Your task to perform on an android device: check google app version Image 0: 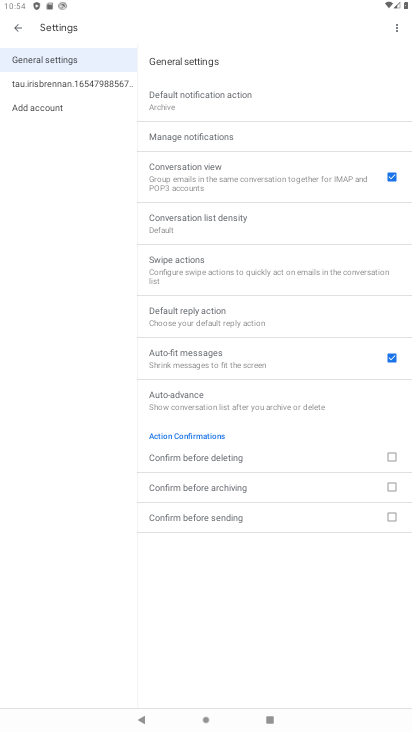
Step 0: press home button
Your task to perform on an android device: check google app version Image 1: 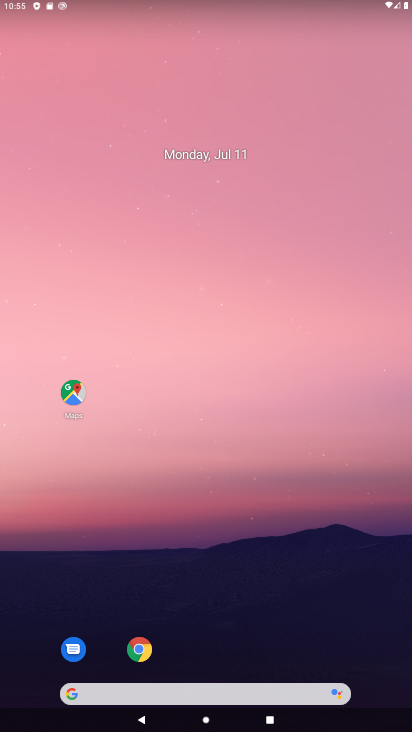
Step 1: drag from (189, 689) to (408, 113)
Your task to perform on an android device: check google app version Image 2: 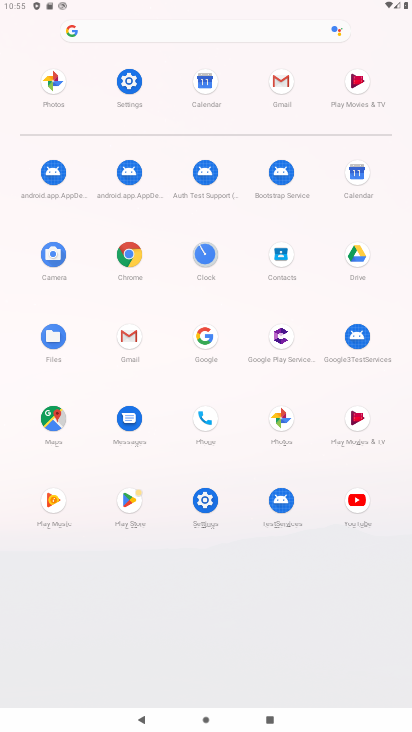
Step 2: click (203, 333)
Your task to perform on an android device: check google app version Image 3: 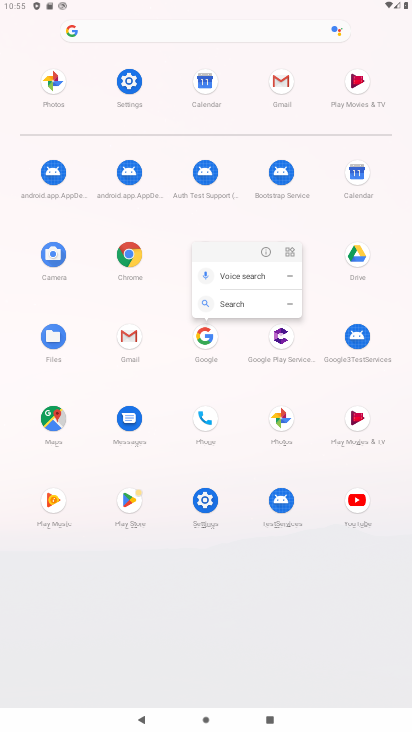
Step 3: click (271, 252)
Your task to perform on an android device: check google app version Image 4: 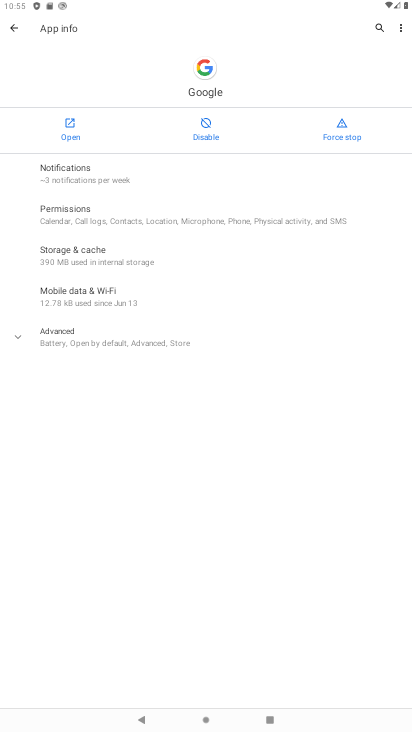
Step 4: click (61, 333)
Your task to perform on an android device: check google app version Image 5: 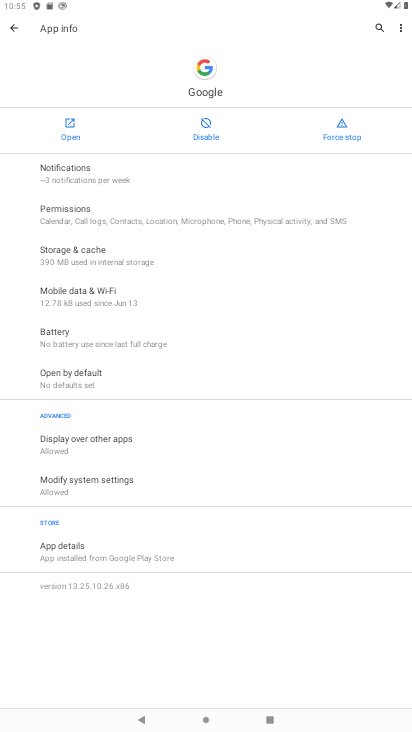
Step 5: click (67, 588)
Your task to perform on an android device: check google app version Image 6: 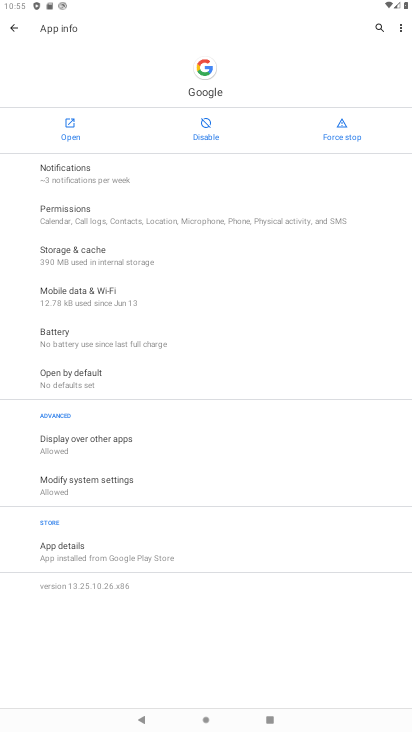
Step 6: drag from (67, 588) to (135, 587)
Your task to perform on an android device: check google app version Image 7: 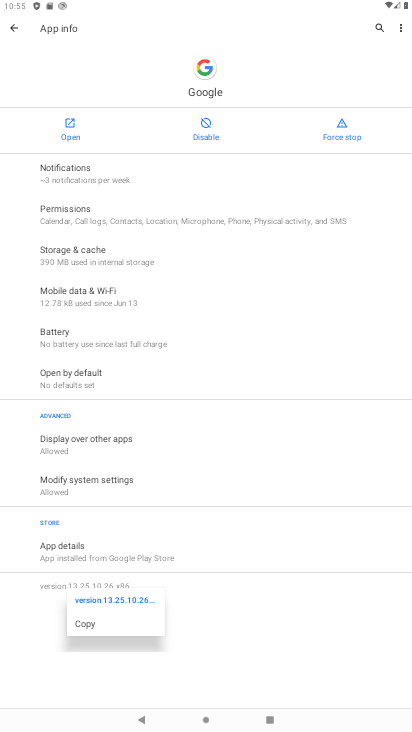
Step 7: click (220, 602)
Your task to perform on an android device: check google app version Image 8: 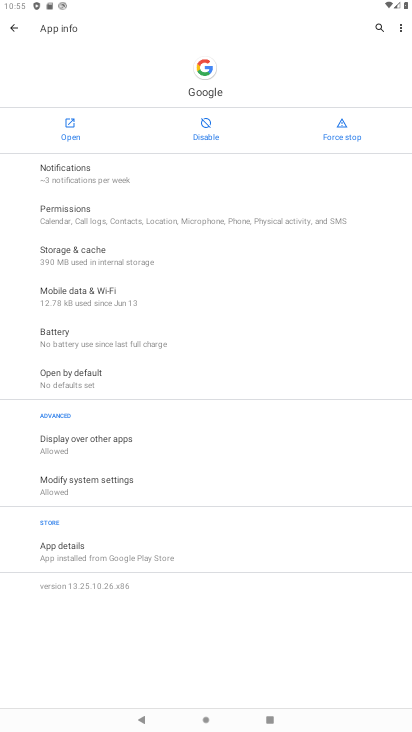
Step 8: task complete